Your task to perform on an android device: turn on wifi Image 0: 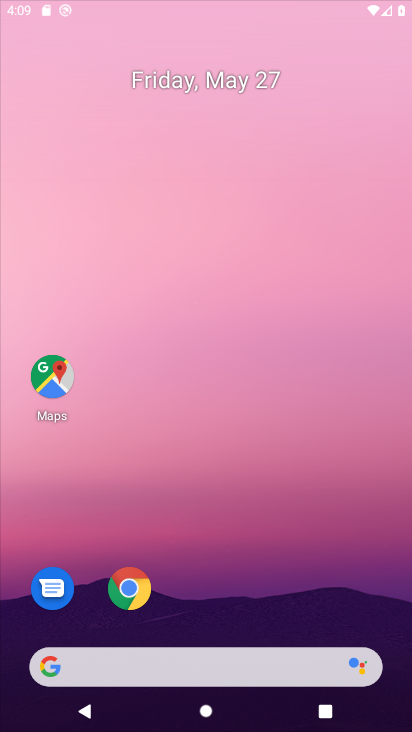
Step 0: press home button
Your task to perform on an android device: turn on wifi Image 1: 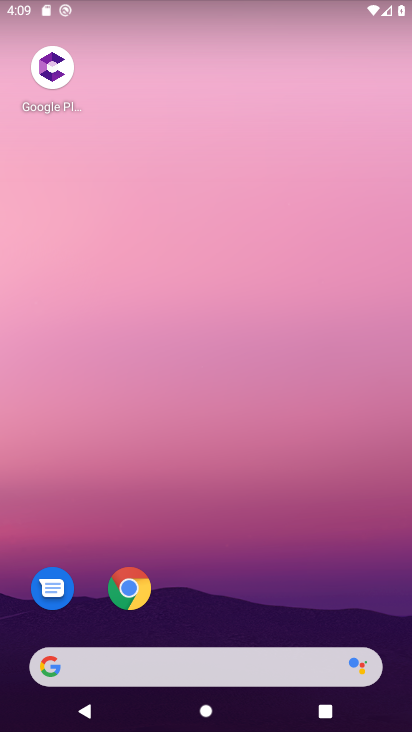
Step 1: task complete